Your task to perform on an android device: check data usage Image 0: 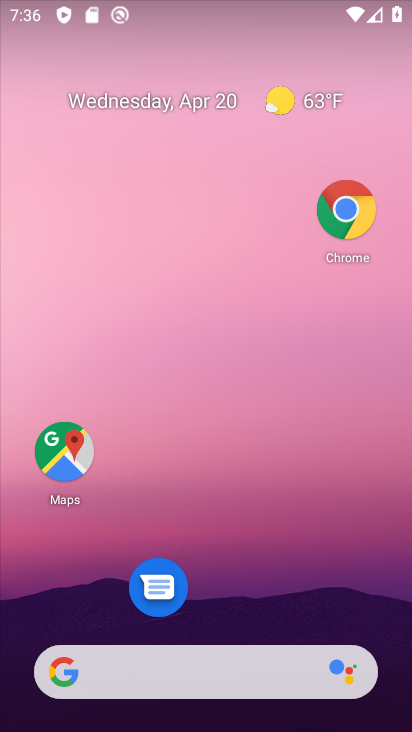
Step 0: drag from (255, 628) to (287, 16)
Your task to perform on an android device: check data usage Image 1: 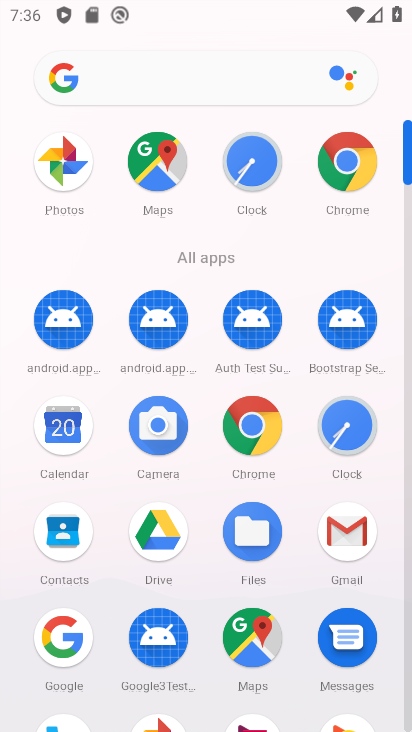
Step 1: drag from (211, 675) to (189, 111)
Your task to perform on an android device: check data usage Image 2: 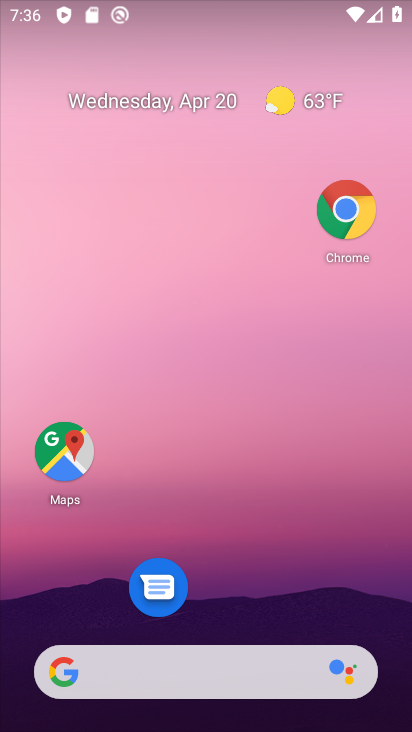
Step 2: drag from (225, 610) to (215, 337)
Your task to perform on an android device: check data usage Image 3: 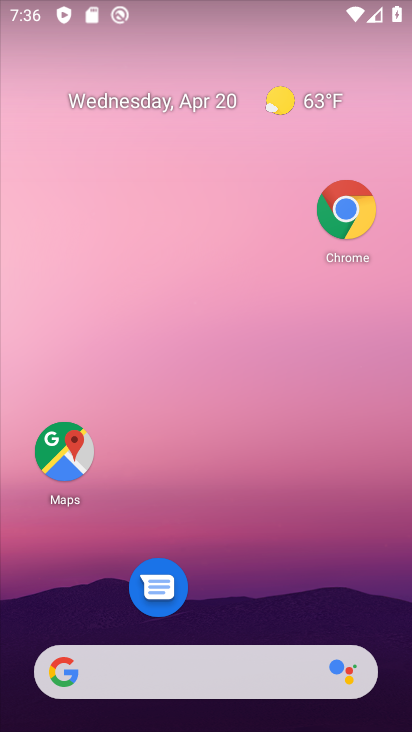
Step 3: drag from (245, 607) to (243, 94)
Your task to perform on an android device: check data usage Image 4: 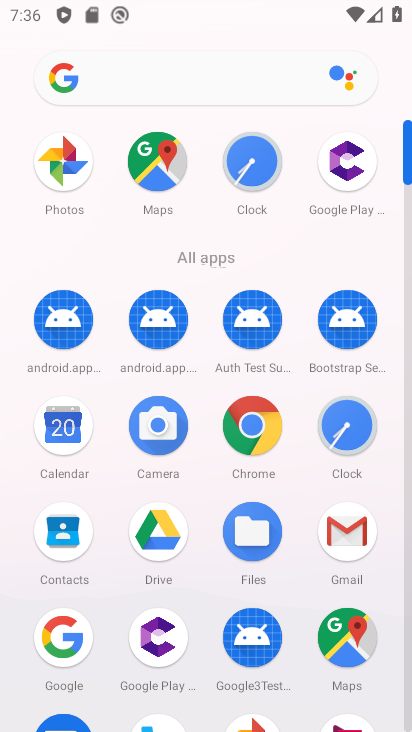
Step 4: drag from (196, 656) to (321, 15)
Your task to perform on an android device: check data usage Image 5: 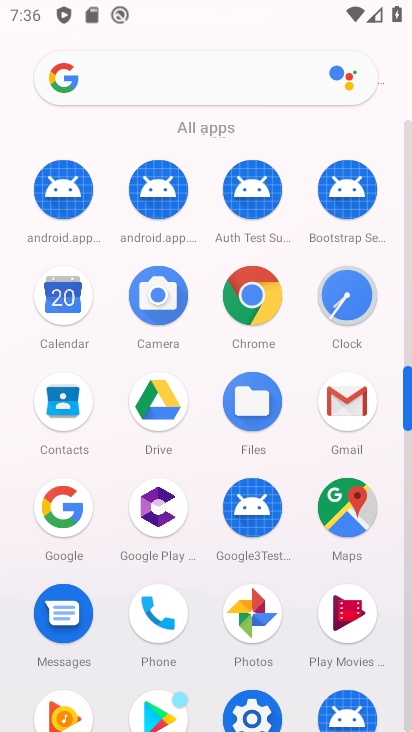
Step 5: click (241, 708)
Your task to perform on an android device: check data usage Image 6: 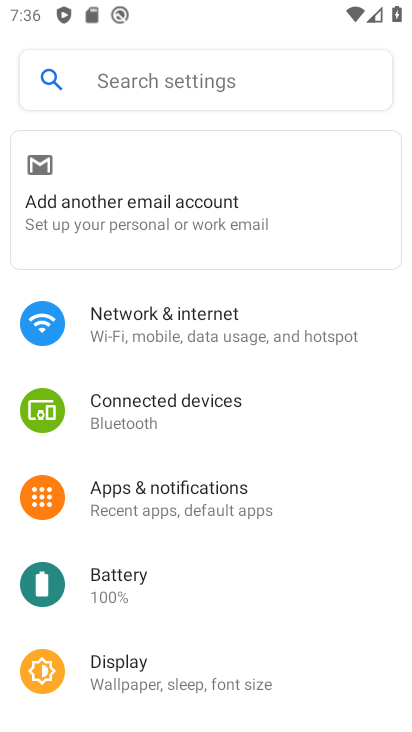
Step 6: click (254, 338)
Your task to perform on an android device: check data usage Image 7: 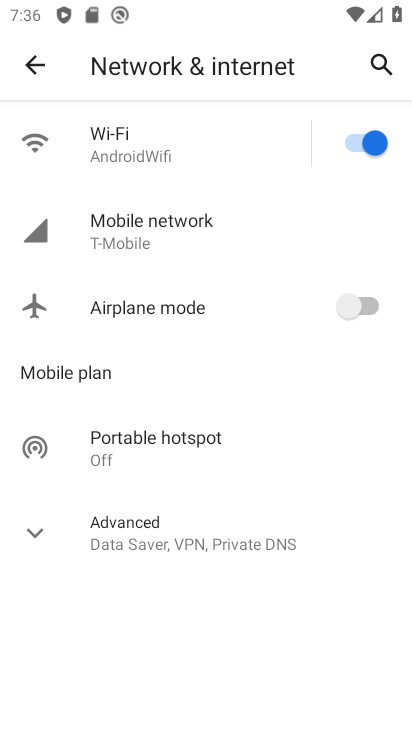
Step 7: click (153, 240)
Your task to perform on an android device: check data usage Image 8: 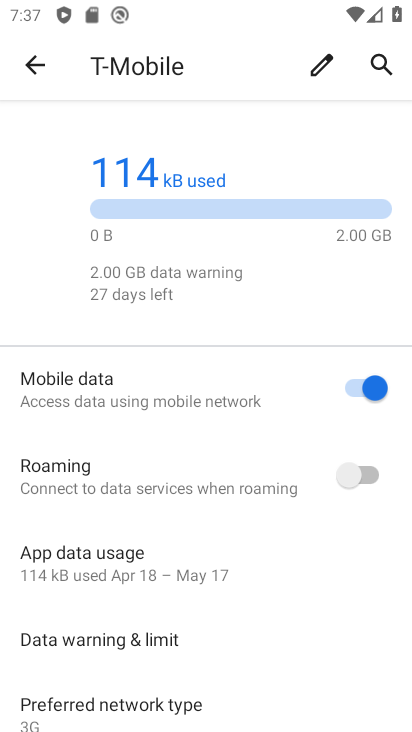
Step 8: task complete